Your task to perform on an android device: open sync settings in chrome Image 0: 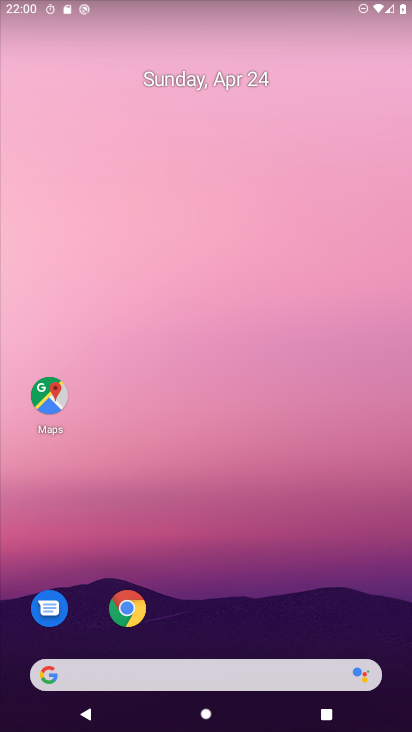
Step 0: click (134, 607)
Your task to perform on an android device: open sync settings in chrome Image 1: 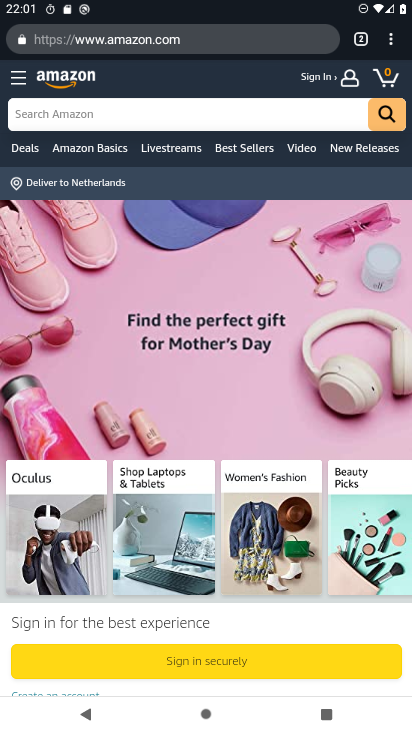
Step 1: click (392, 37)
Your task to perform on an android device: open sync settings in chrome Image 2: 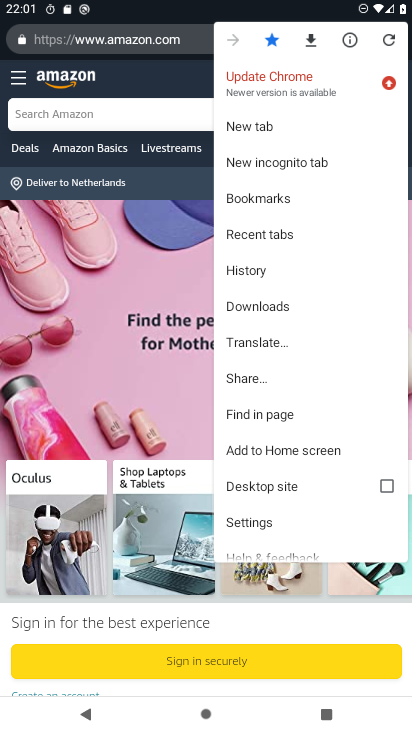
Step 2: click (261, 518)
Your task to perform on an android device: open sync settings in chrome Image 3: 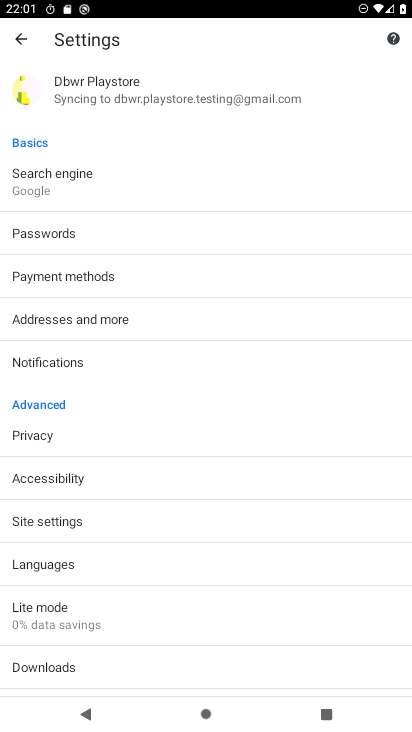
Step 3: click (187, 87)
Your task to perform on an android device: open sync settings in chrome Image 4: 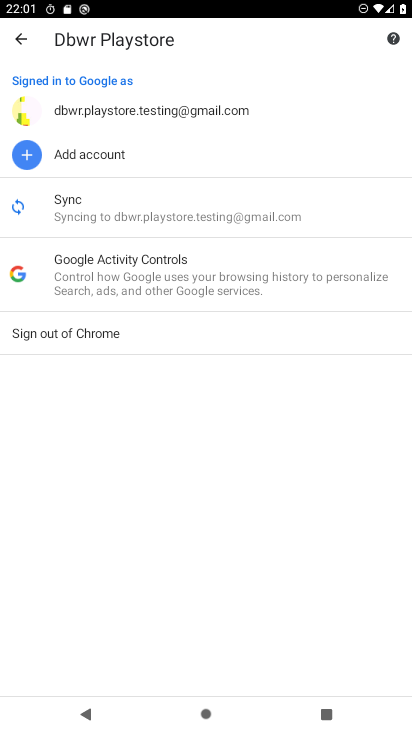
Step 4: click (177, 198)
Your task to perform on an android device: open sync settings in chrome Image 5: 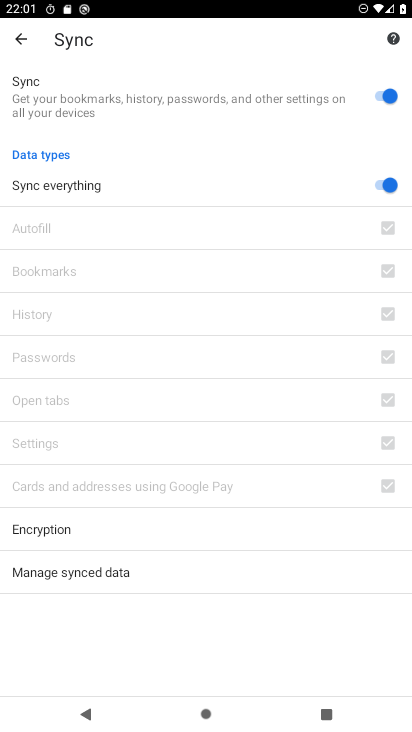
Step 5: task complete